Your task to perform on an android device: toggle javascript in the chrome app Image 0: 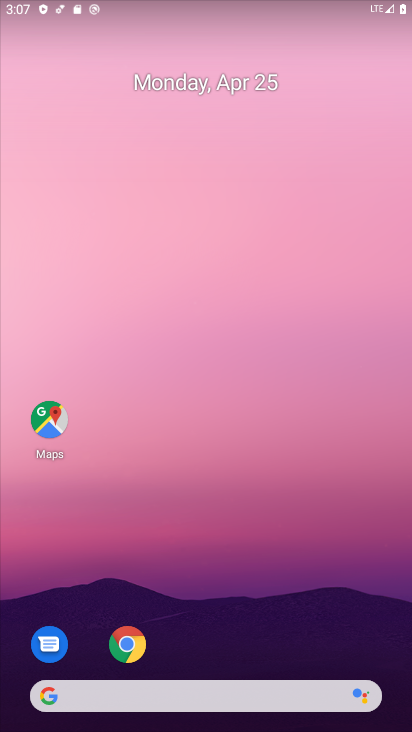
Step 0: drag from (212, 658) to (204, 204)
Your task to perform on an android device: toggle javascript in the chrome app Image 1: 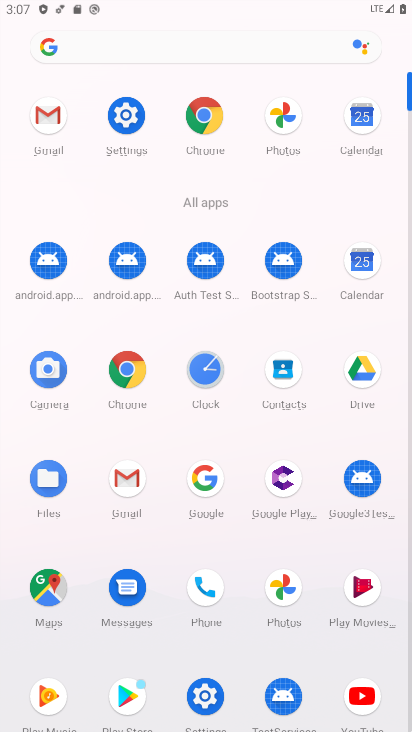
Step 1: click (126, 369)
Your task to perform on an android device: toggle javascript in the chrome app Image 2: 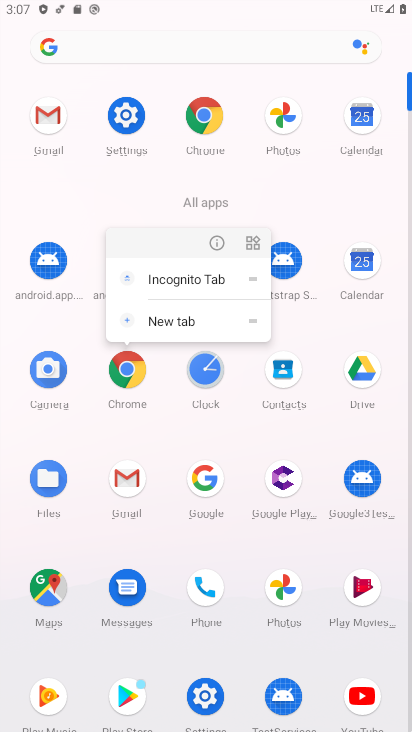
Step 2: click (126, 369)
Your task to perform on an android device: toggle javascript in the chrome app Image 3: 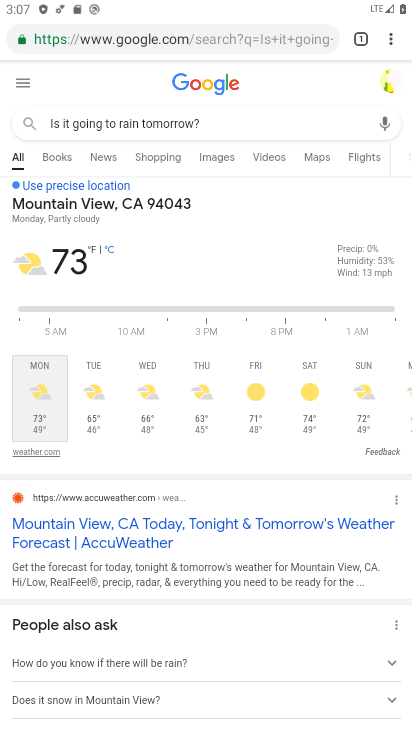
Step 3: drag from (390, 52) to (251, 486)
Your task to perform on an android device: toggle javascript in the chrome app Image 4: 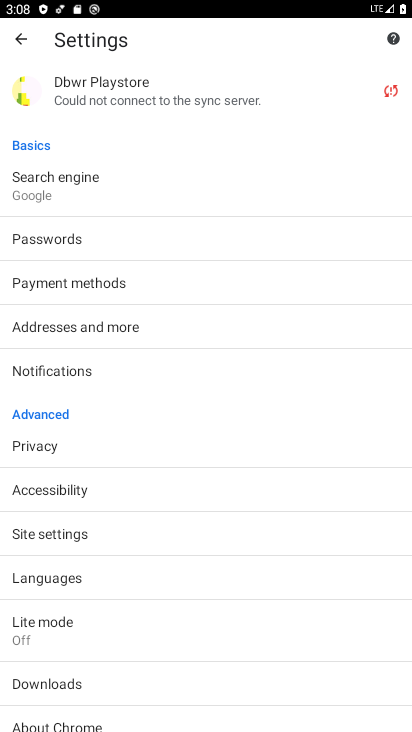
Step 4: click (130, 534)
Your task to perform on an android device: toggle javascript in the chrome app Image 5: 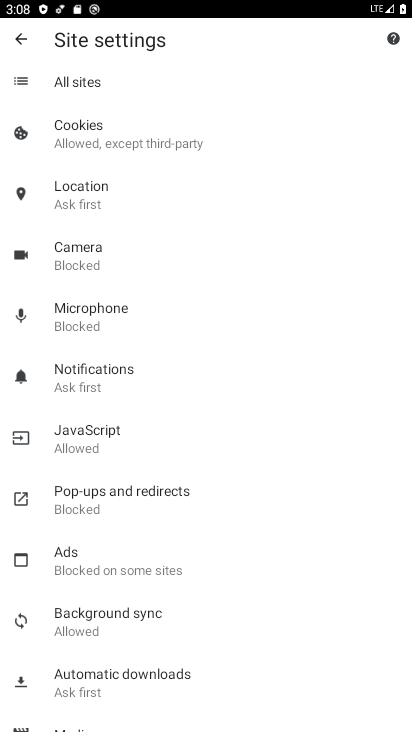
Step 5: click (140, 444)
Your task to perform on an android device: toggle javascript in the chrome app Image 6: 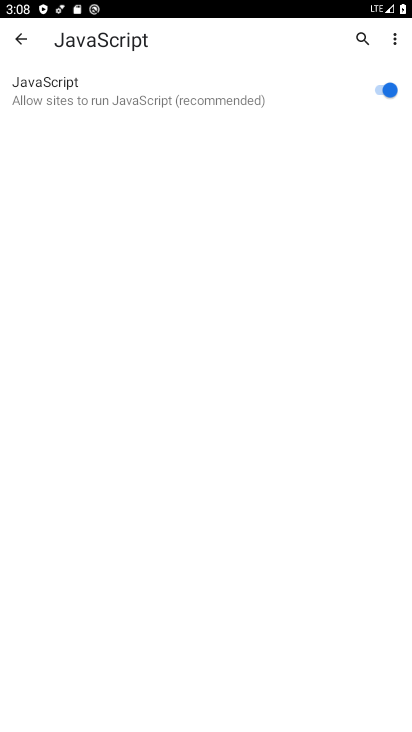
Step 6: click (384, 92)
Your task to perform on an android device: toggle javascript in the chrome app Image 7: 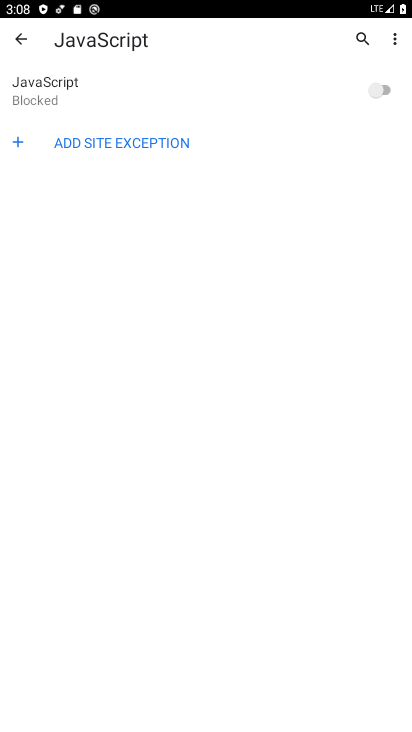
Step 7: task complete